Your task to perform on an android device: Open Google Maps and go to "Timeline" Image 0: 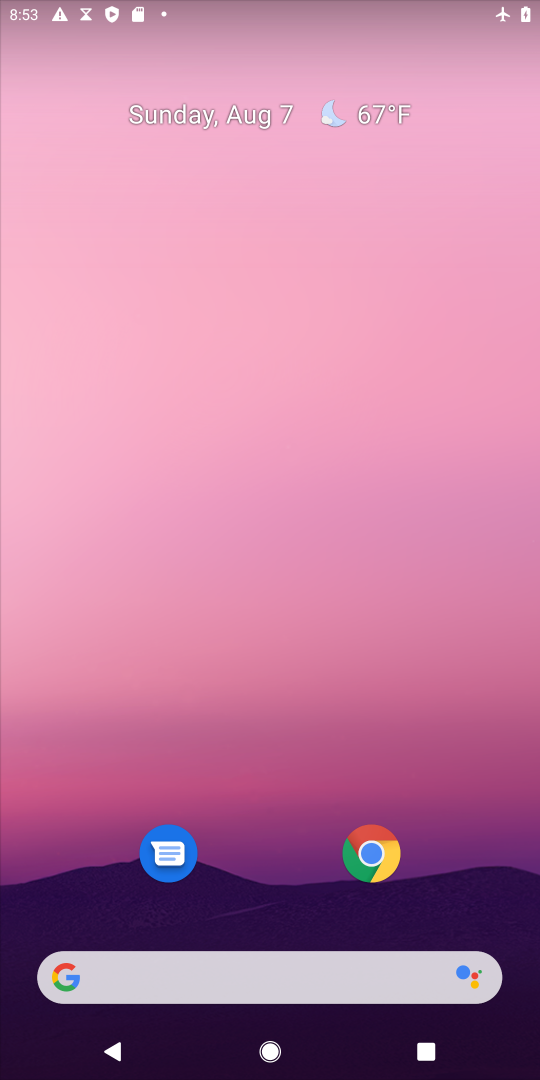
Step 0: drag from (304, 955) to (289, 366)
Your task to perform on an android device: Open Google Maps and go to "Timeline" Image 1: 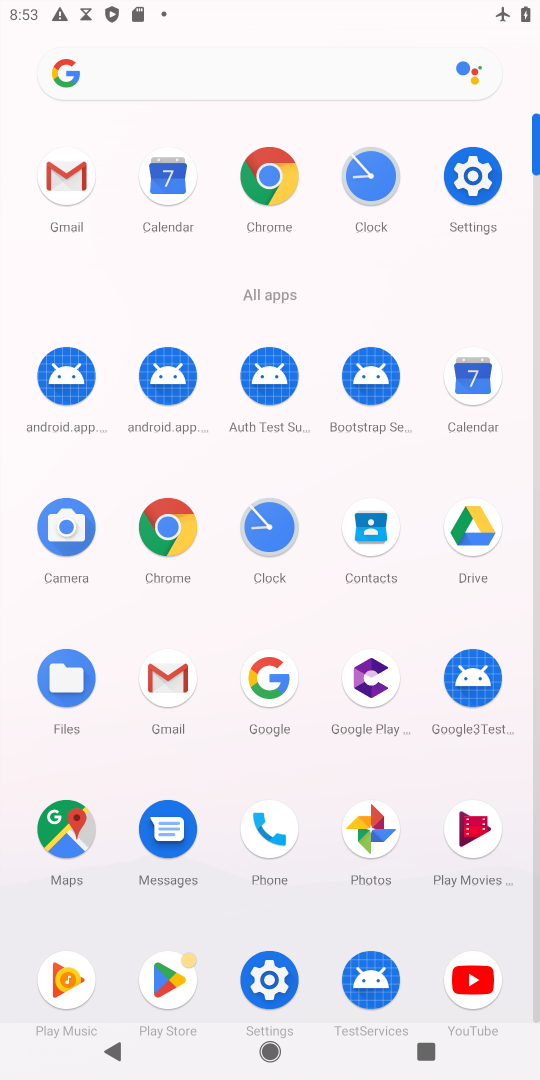
Step 1: click (64, 820)
Your task to perform on an android device: Open Google Maps and go to "Timeline" Image 2: 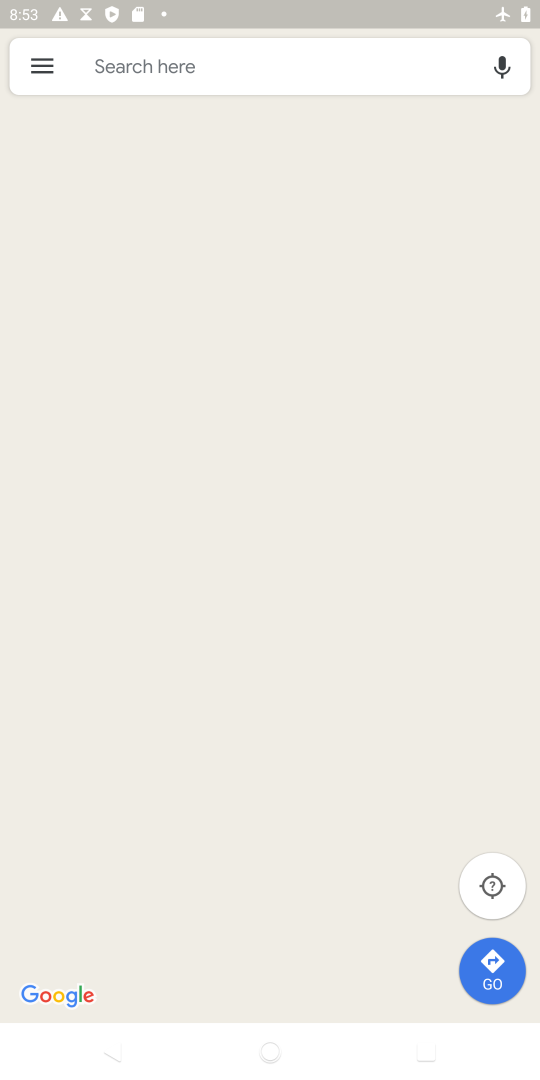
Step 2: click (41, 56)
Your task to perform on an android device: Open Google Maps and go to "Timeline" Image 3: 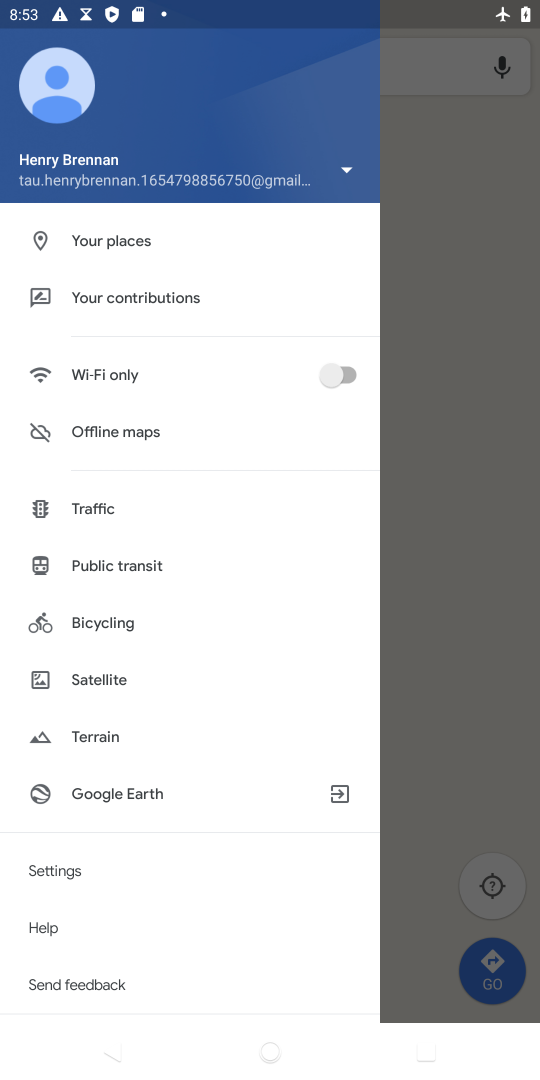
Step 3: click (419, 257)
Your task to perform on an android device: Open Google Maps and go to "Timeline" Image 4: 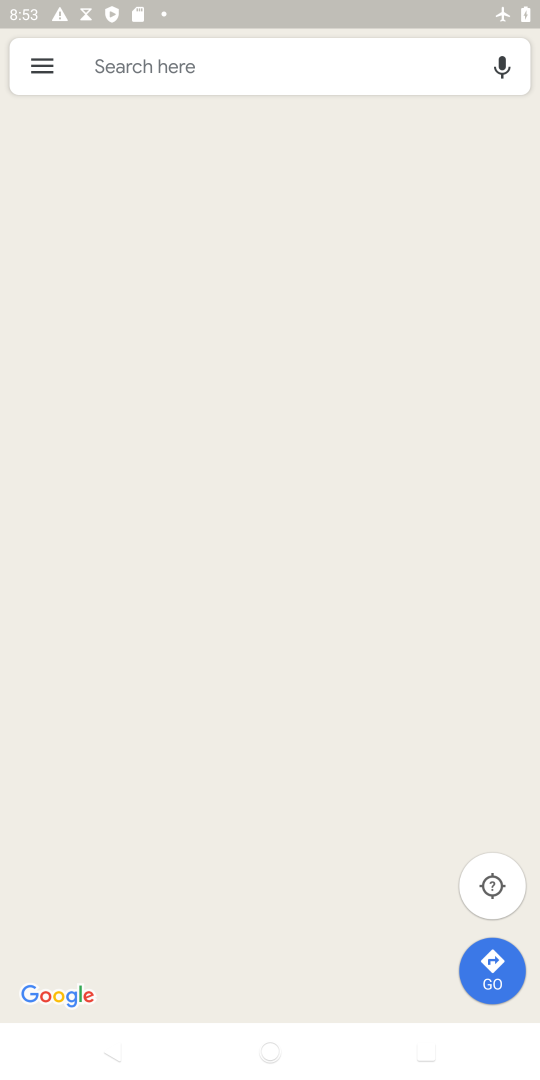
Step 4: click (39, 56)
Your task to perform on an android device: Open Google Maps and go to "Timeline" Image 5: 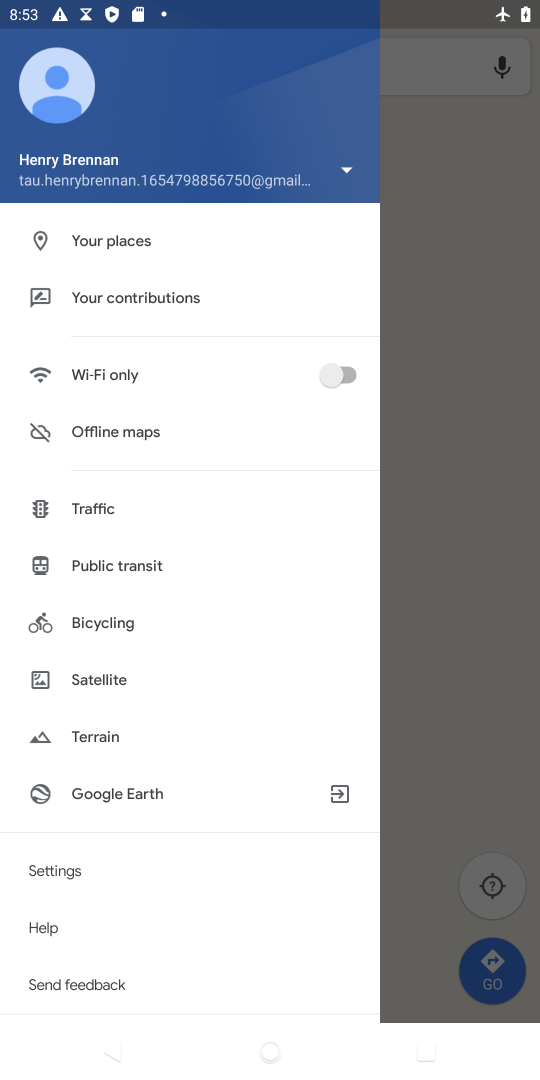
Step 5: click (203, 177)
Your task to perform on an android device: Open Google Maps and go to "Timeline" Image 6: 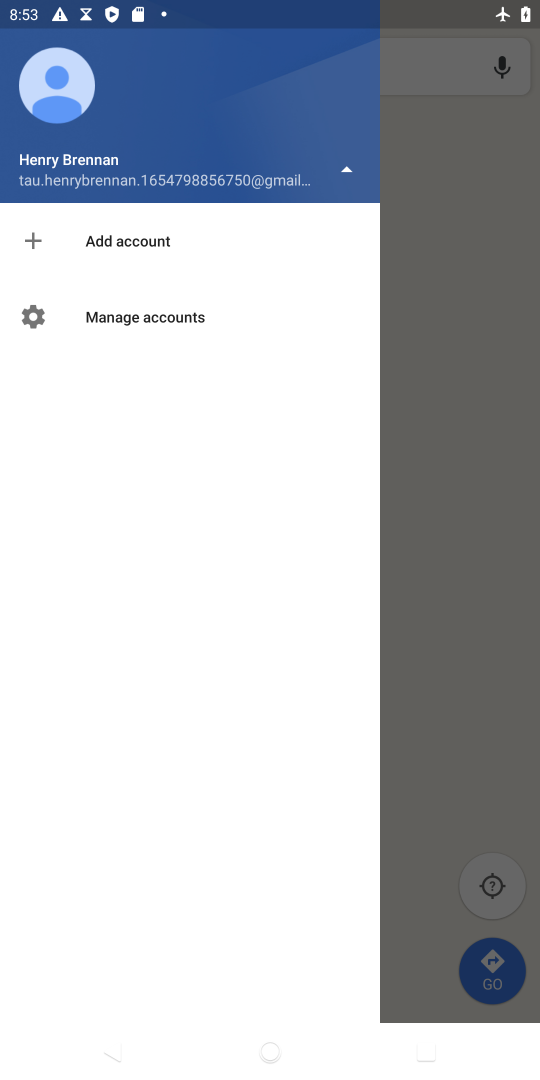
Step 6: click (203, 177)
Your task to perform on an android device: Open Google Maps and go to "Timeline" Image 7: 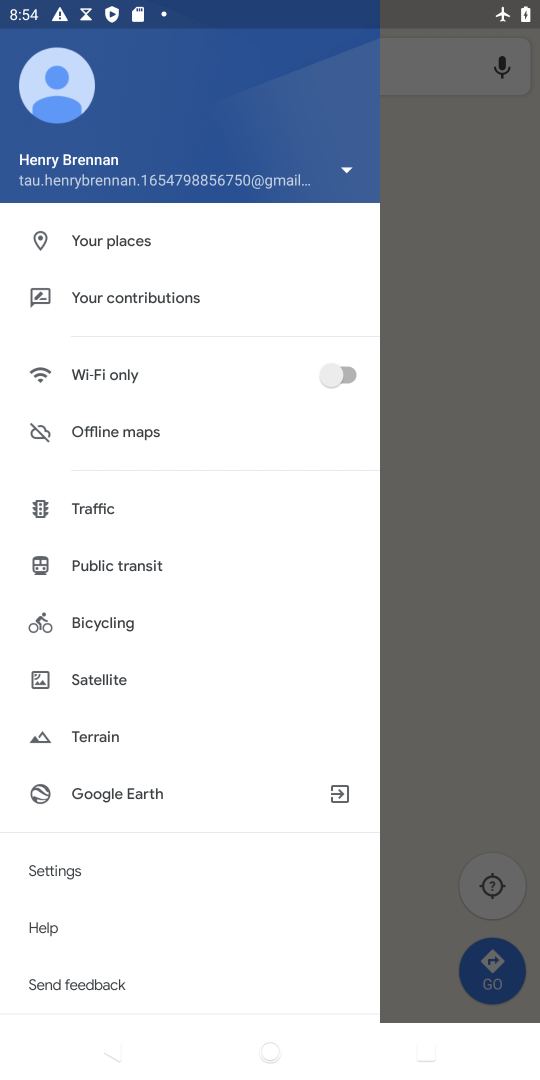
Step 7: click (428, 424)
Your task to perform on an android device: Open Google Maps and go to "Timeline" Image 8: 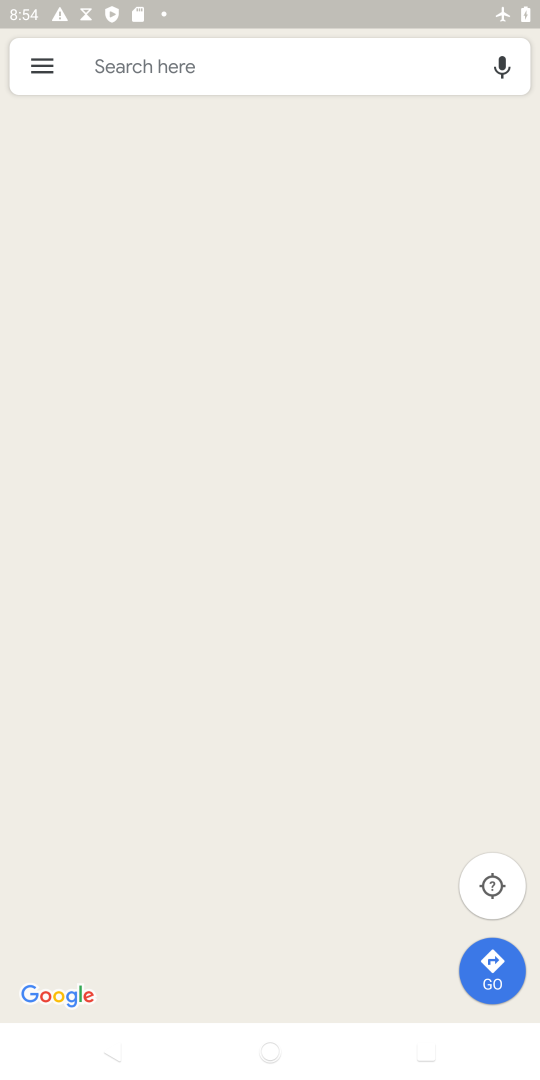
Step 8: click (58, 63)
Your task to perform on an android device: Open Google Maps and go to "Timeline" Image 9: 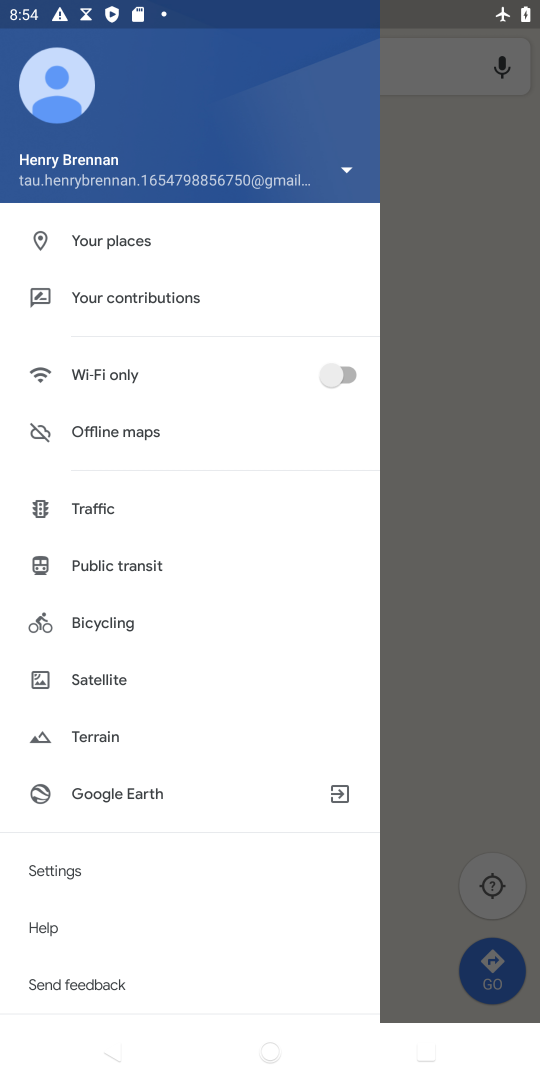
Step 9: click (135, 292)
Your task to perform on an android device: Open Google Maps and go to "Timeline" Image 10: 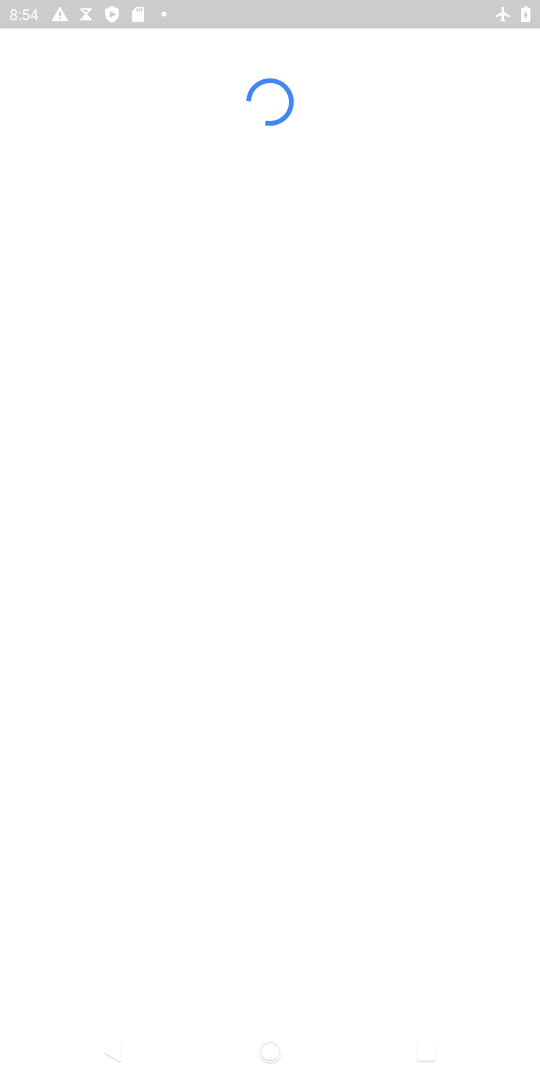
Step 10: press back button
Your task to perform on an android device: Open Google Maps and go to "Timeline" Image 11: 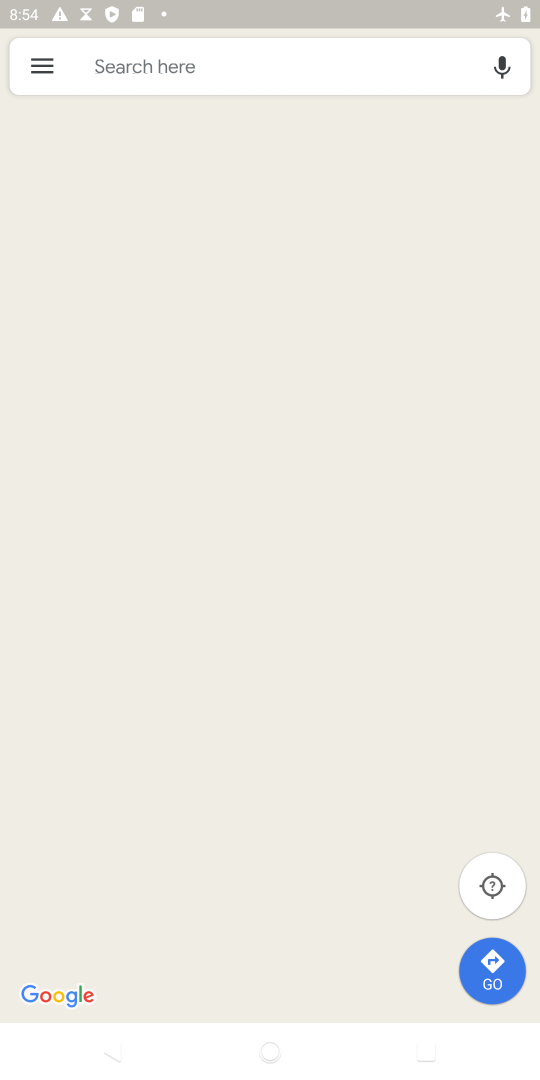
Step 11: click (44, 59)
Your task to perform on an android device: Open Google Maps and go to "Timeline" Image 12: 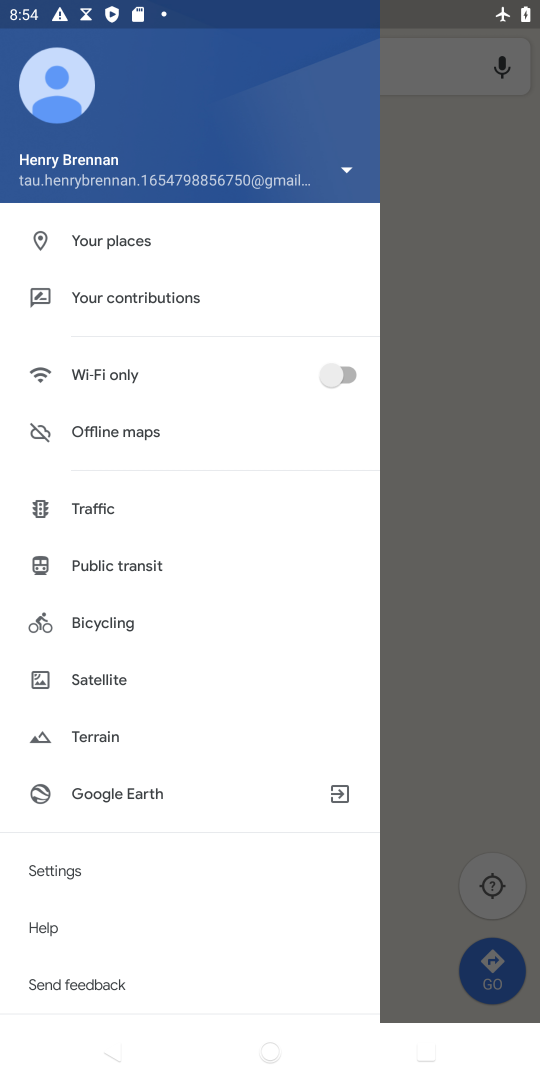
Step 12: drag from (125, 861) to (228, 279)
Your task to perform on an android device: Open Google Maps and go to "Timeline" Image 13: 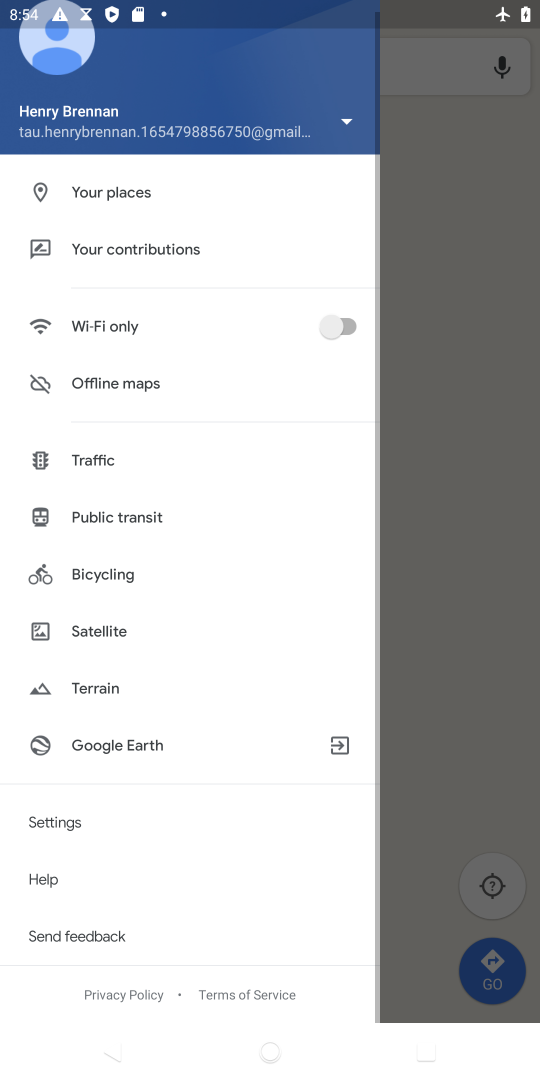
Step 13: click (69, 813)
Your task to perform on an android device: Open Google Maps and go to "Timeline" Image 14: 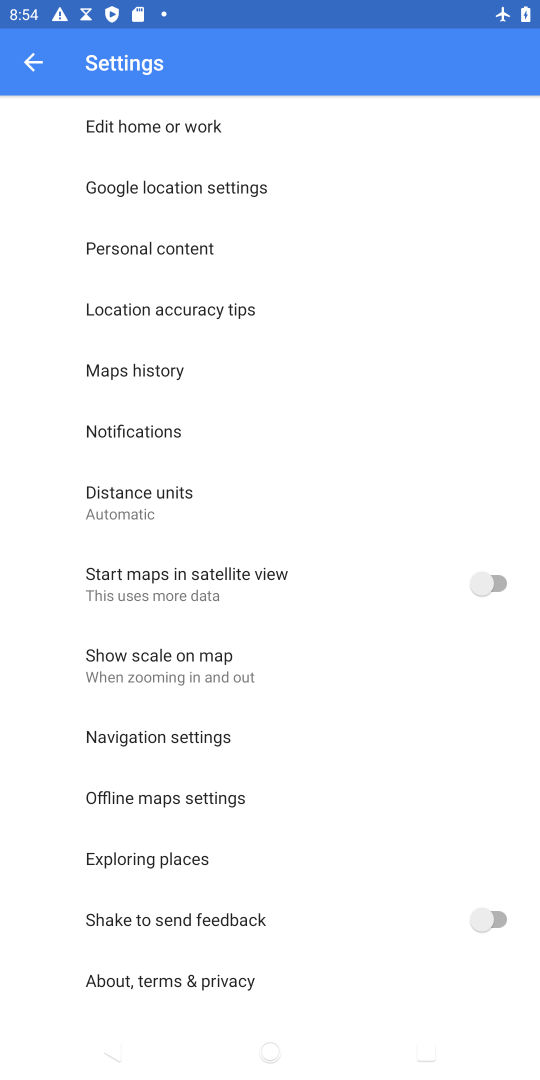
Step 14: click (21, 52)
Your task to perform on an android device: Open Google Maps and go to "Timeline" Image 15: 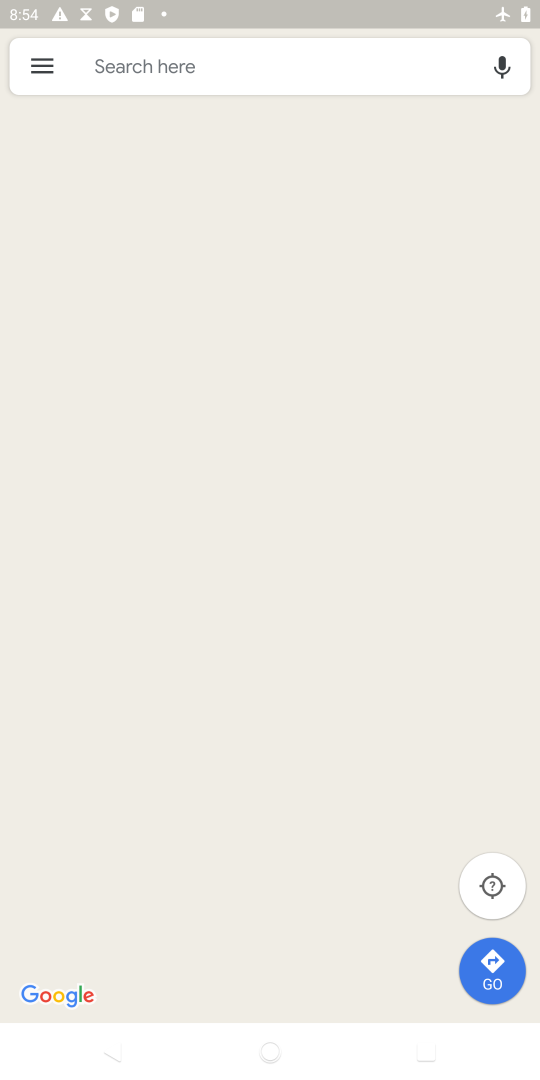
Step 15: click (36, 67)
Your task to perform on an android device: Open Google Maps and go to "Timeline" Image 16: 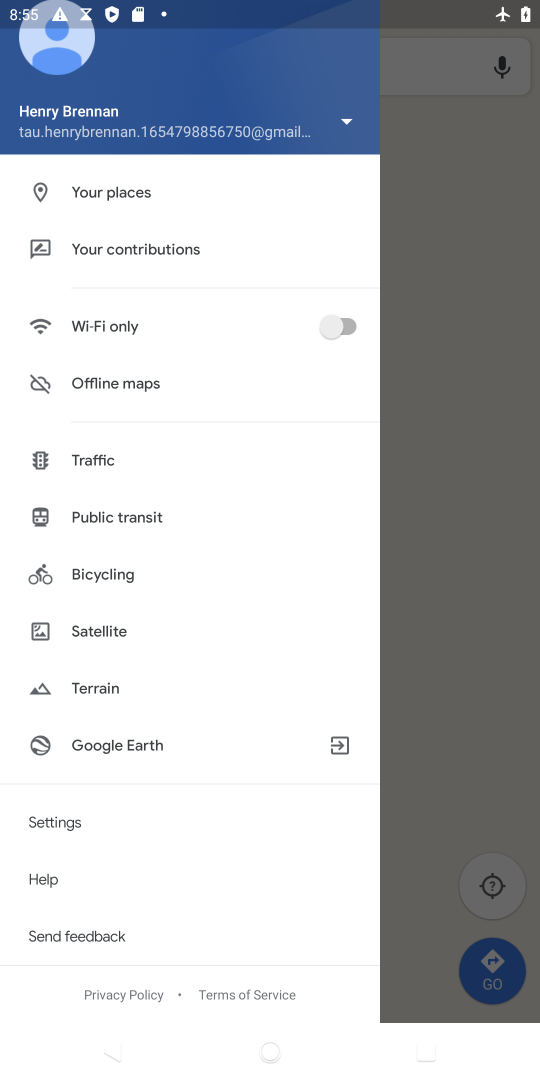
Step 16: click (520, 454)
Your task to perform on an android device: Open Google Maps and go to "Timeline" Image 17: 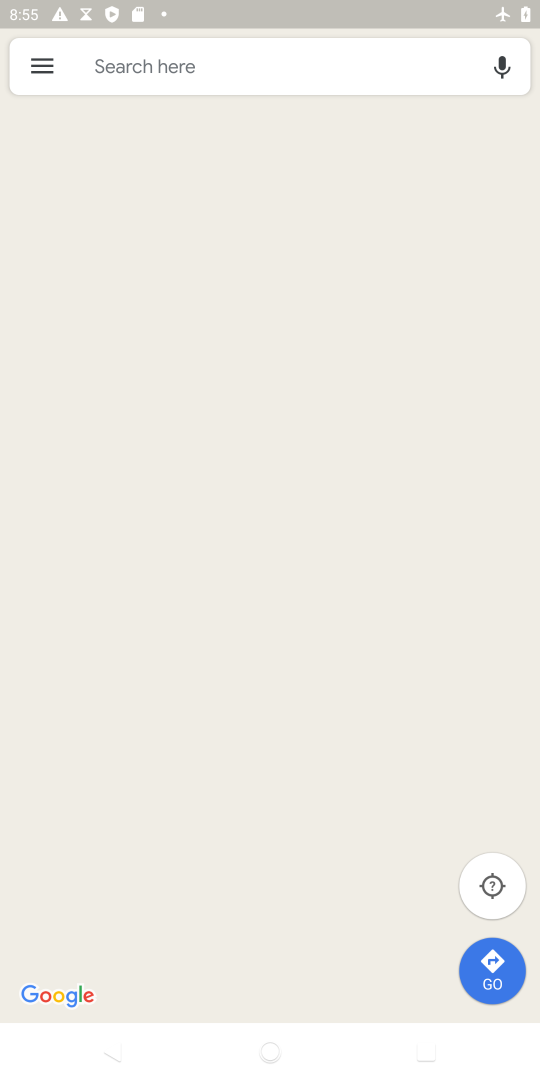
Step 17: task complete